Your task to perform on an android device: Open Google Image 0: 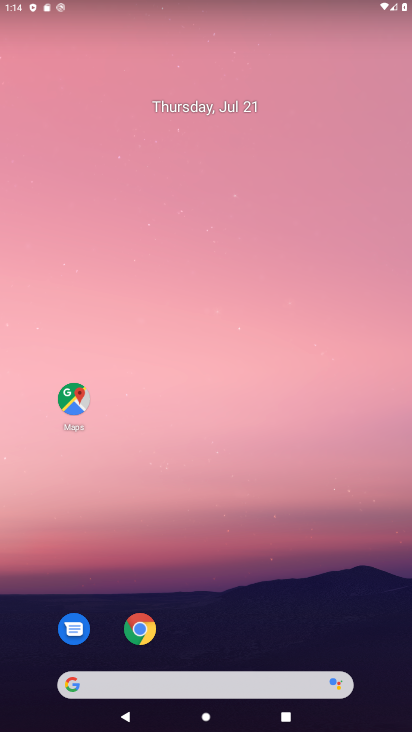
Step 0: click (129, 681)
Your task to perform on an android device: Open Google Image 1: 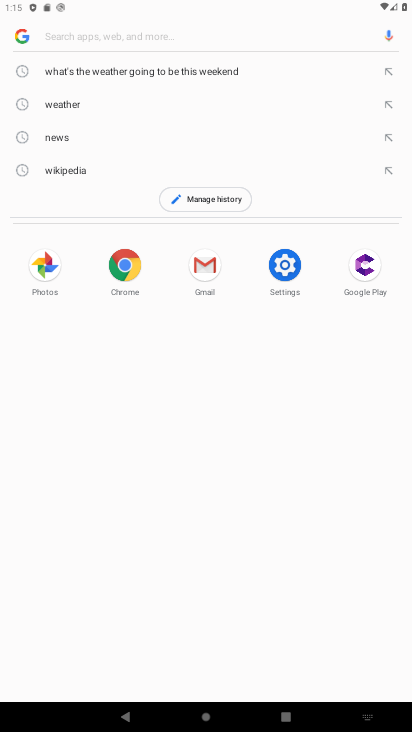
Step 1: task complete